Your task to perform on an android device: Open Google Maps and go to "Timeline" Image 0: 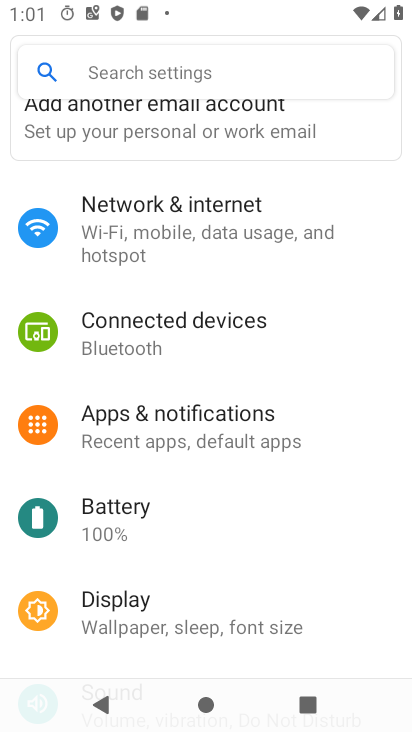
Step 0: press home button
Your task to perform on an android device: Open Google Maps and go to "Timeline" Image 1: 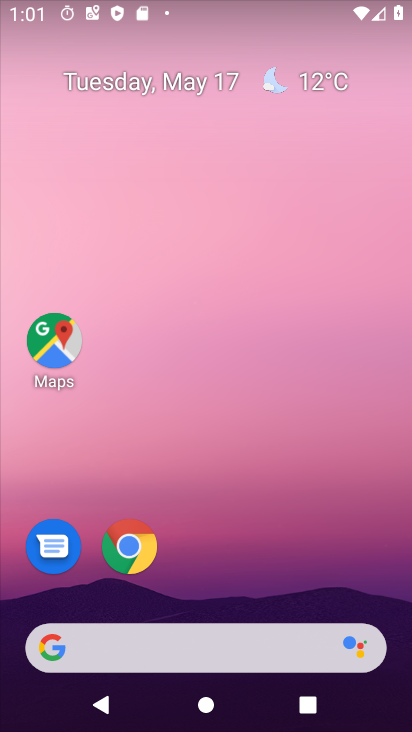
Step 1: drag from (142, 658) to (324, 192)
Your task to perform on an android device: Open Google Maps and go to "Timeline" Image 2: 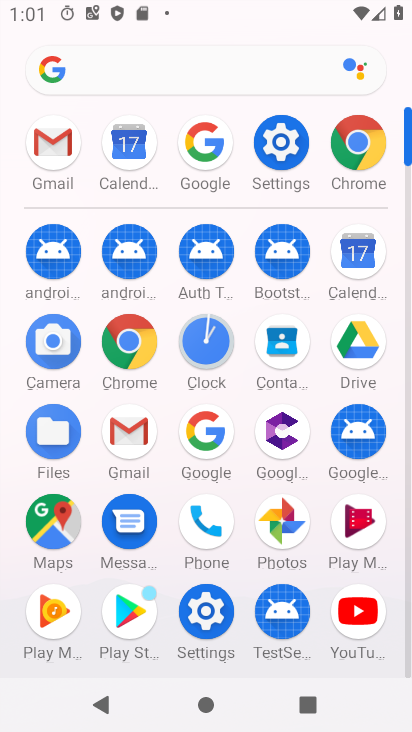
Step 2: click (47, 531)
Your task to perform on an android device: Open Google Maps and go to "Timeline" Image 3: 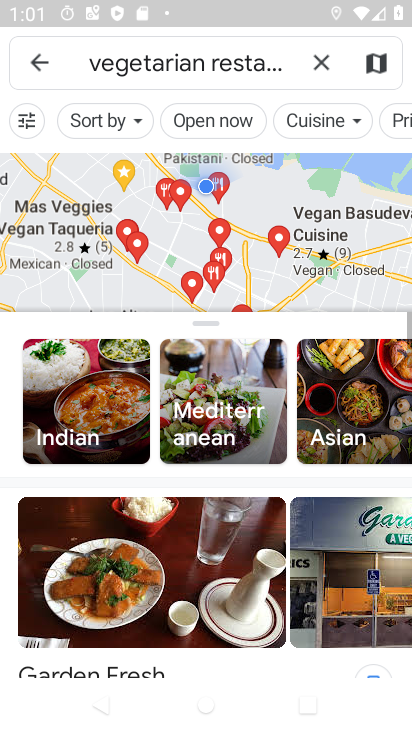
Step 3: click (37, 66)
Your task to perform on an android device: Open Google Maps and go to "Timeline" Image 4: 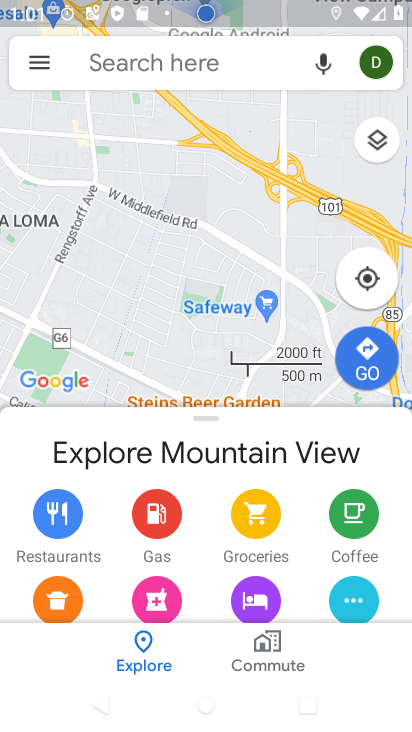
Step 4: click (44, 60)
Your task to perform on an android device: Open Google Maps and go to "Timeline" Image 5: 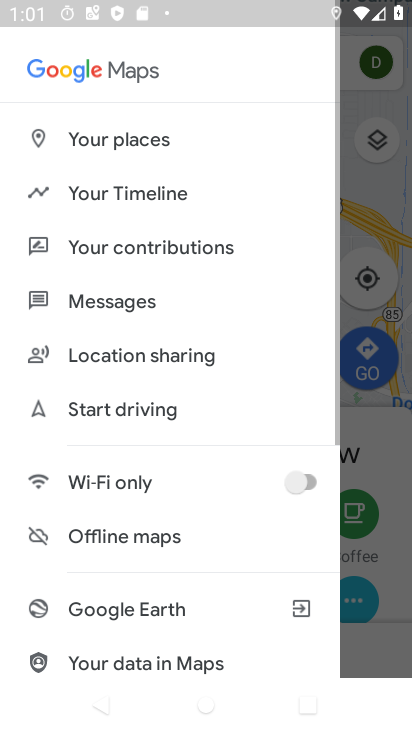
Step 5: click (168, 195)
Your task to perform on an android device: Open Google Maps and go to "Timeline" Image 6: 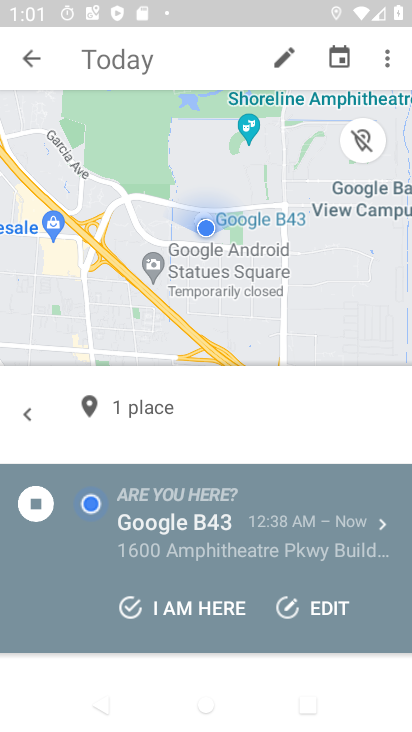
Step 6: task complete